Your task to perform on an android device: turn on improve location accuracy Image 0: 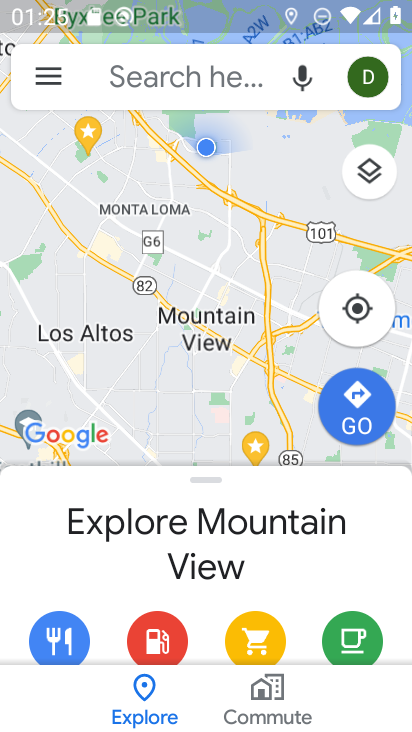
Step 0: press home button
Your task to perform on an android device: turn on improve location accuracy Image 1: 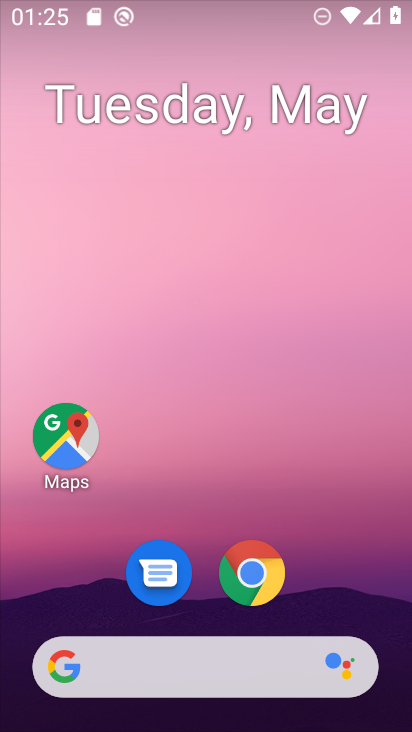
Step 1: drag from (329, 548) to (237, 65)
Your task to perform on an android device: turn on improve location accuracy Image 2: 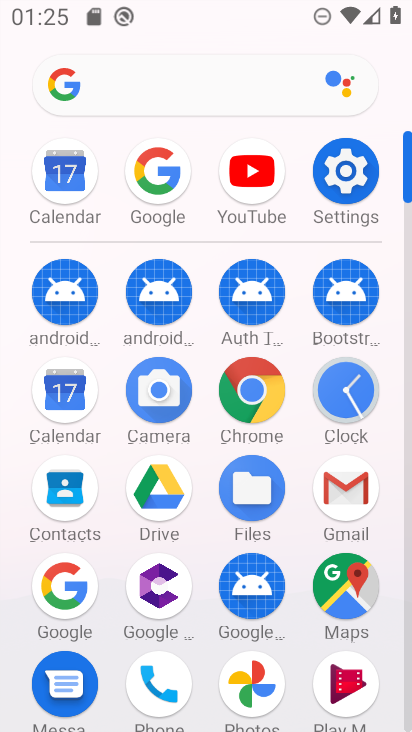
Step 2: click (346, 184)
Your task to perform on an android device: turn on improve location accuracy Image 3: 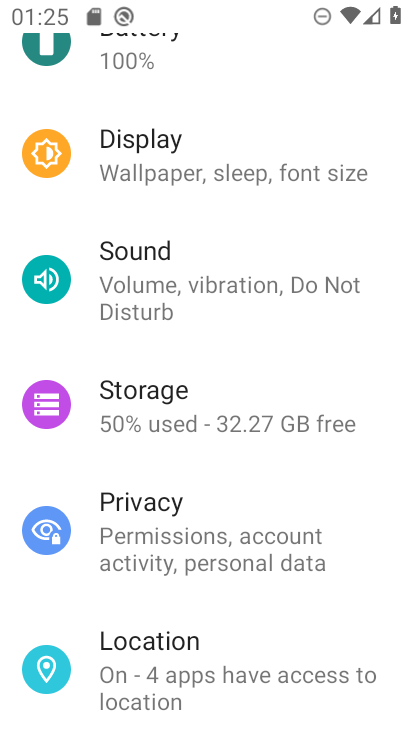
Step 3: drag from (265, 611) to (254, 168)
Your task to perform on an android device: turn on improve location accuracy Image 4: 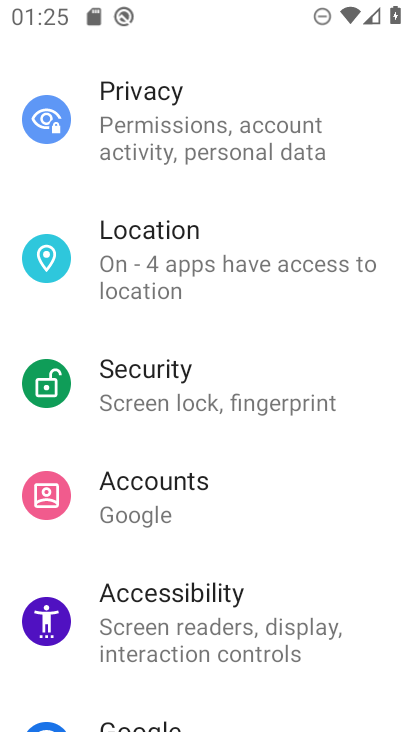
Step 4: click (217, 271)
Your task to perform on an android device: turn on improve location accuracy Image 5: 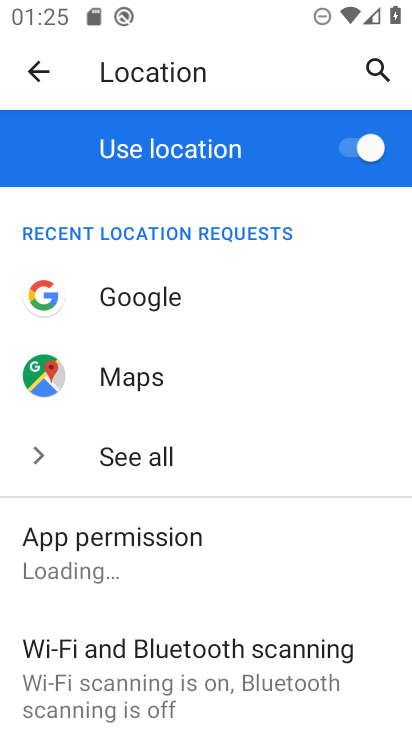
Step 5: drag from (261, 573) to (258, 275)
Your task to perform on an android device: turn on improve location accuracy Image 6: 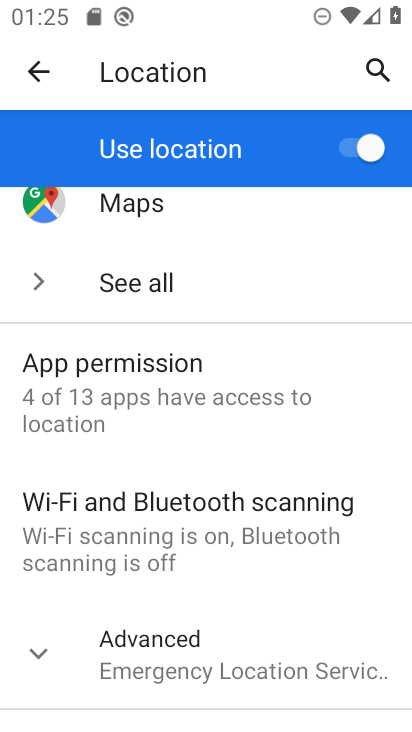
Step 6: click (212, 655)
Your task to perform on an android device: turn on improve location accuracy Image 7: 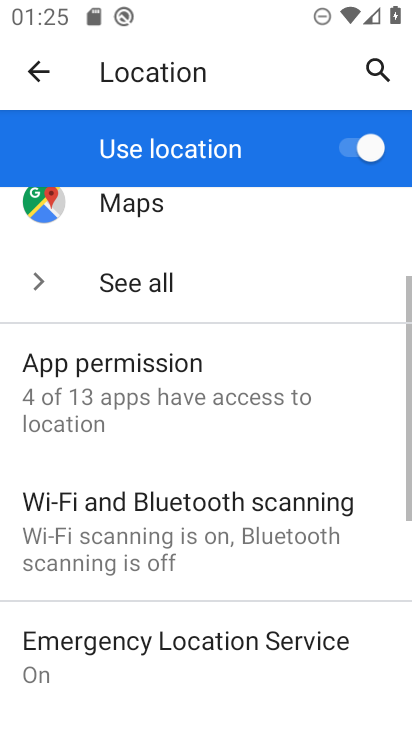
Step 7: drag from (224, 688) to (272, 289)
Your task to perform on an android device: turn on improve location accuracy Image 8: 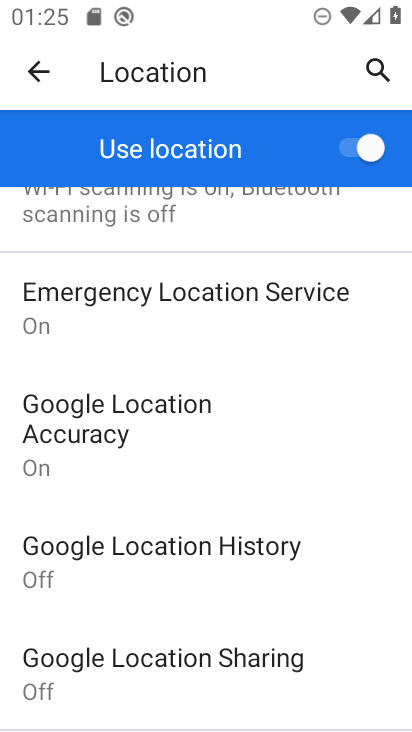
Step 8: click (181, 435)
Your task to perform on an android device: turn on improve location accuracy Image 9: 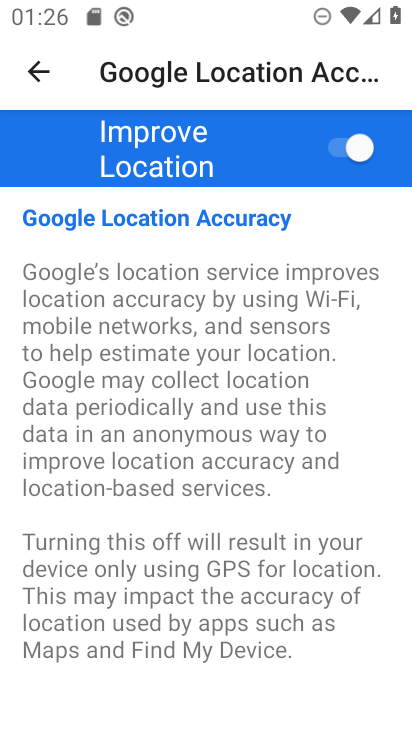
Step 9: task complete